Your task to perform on an android device: Find coffee shops on Maps Image 0: 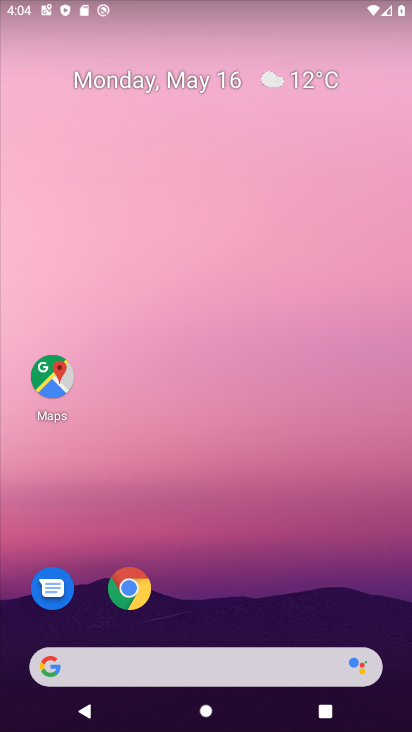
Step 0: click (44, 369)
Your task to perform on an android device: Find coffee shops on Maps Image 1: 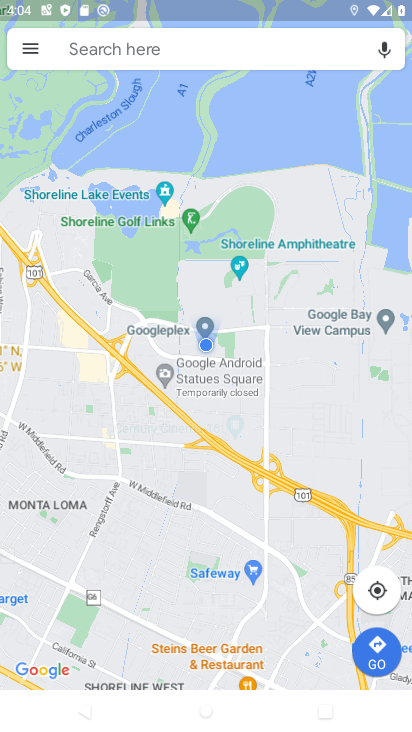
Step 1: click (139, 41)
Your task to perform on an android device: Find coffee shops on Maps Image 2: 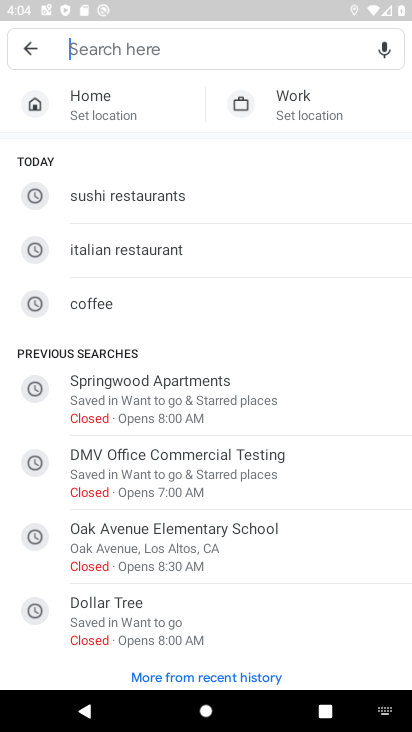
Step 2: type "coffe shops"
Your task to perform on an android device: Find coffee shops on Maps Image 3: 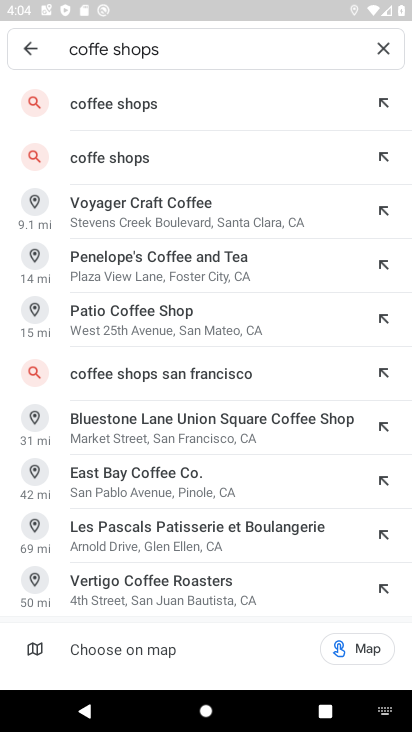
Step 3: click (239, 109)
Your task to perform on an android device: Find coffee shops on Maps Image 4: 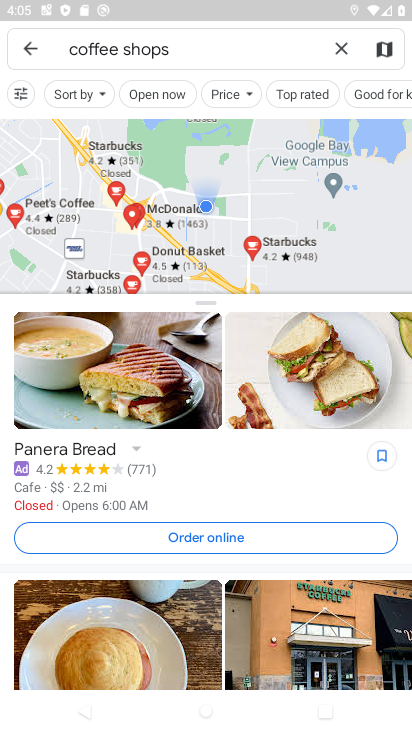
Step 4: task complete